Your task to perform on an android device: clear history in the chrome app Image 0: 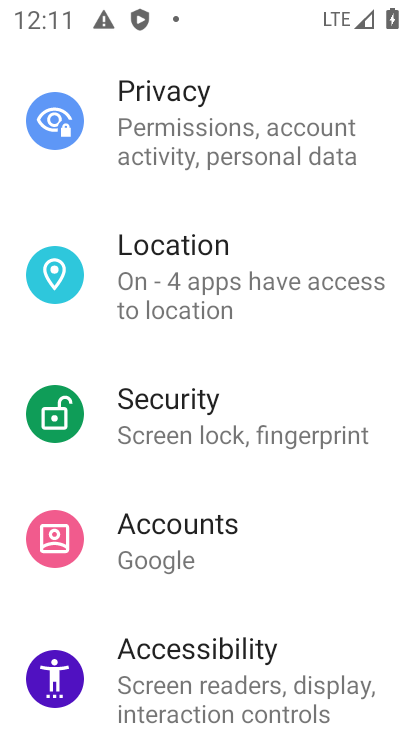
Step 0: drag from (356, 682) to (288, 105)
Your task to perform on an android device: clear history in the chrome app Image 1: 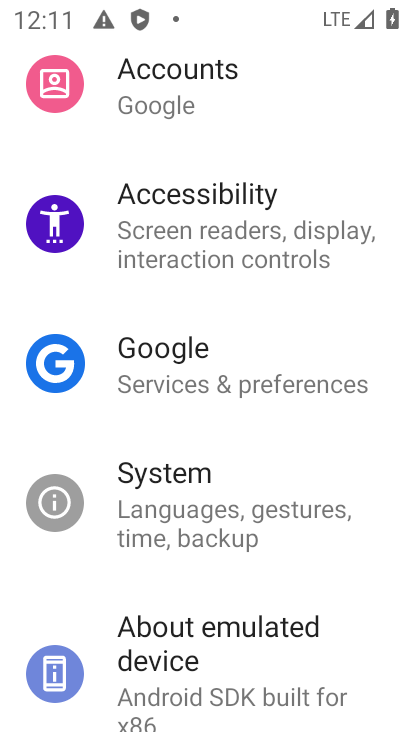
Step 1: press back button
Your task to perform on an android device: clear history in the chrome app Image 2: 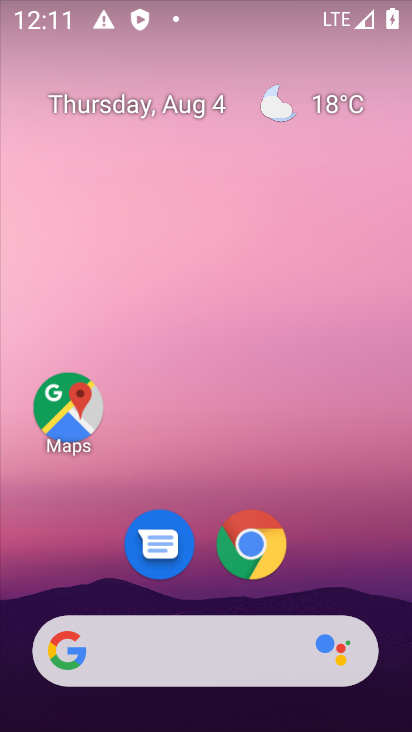
Step 2: click (241, 542)
Your task to perform on an android device: clear history in the chrome app Image 3: 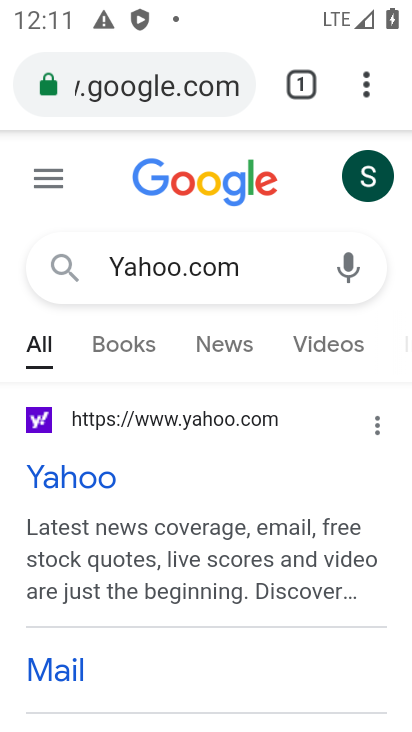
Step 3: click (364, 89)
Your task to perform on an android device: clear history in the chrome app Image 4: 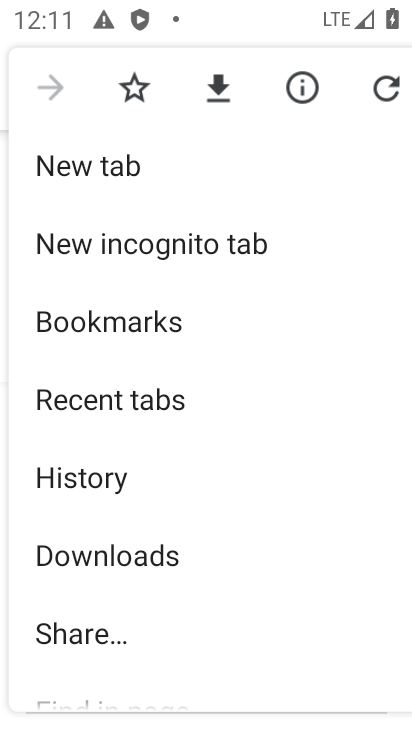
Step 4: click (86, 471)
Your task to perform on an android device: clear history in the chrome app Image 5: 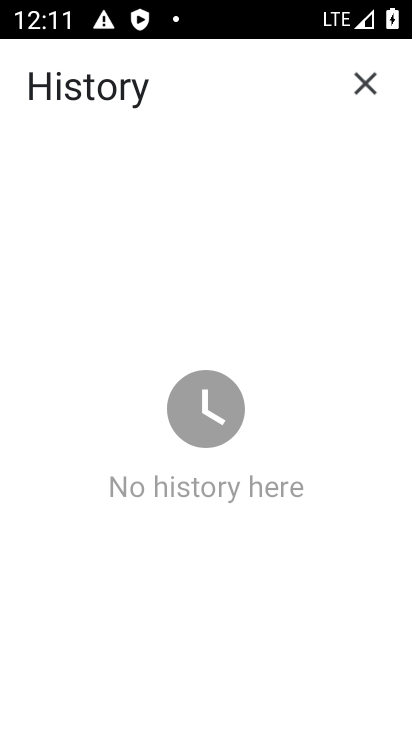
Step 5: task complete